Your task to perform on an android device: Show me the alarms in the clock app Image 0: 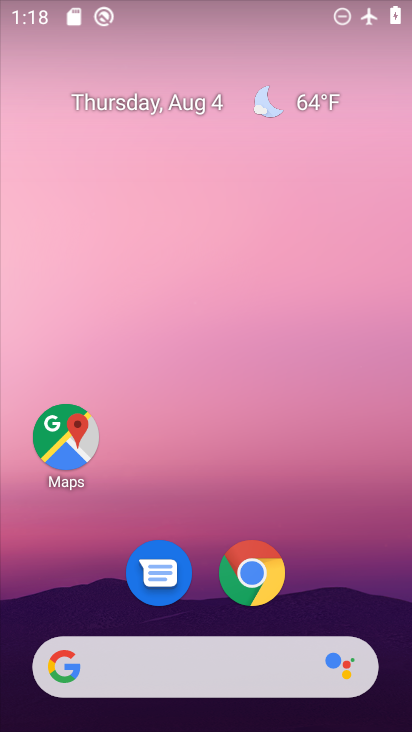
Step 0: drag from (355, 547) to (357, 26)
Your task to perform on an android device: Show me the alarms in the clock app Image 1: 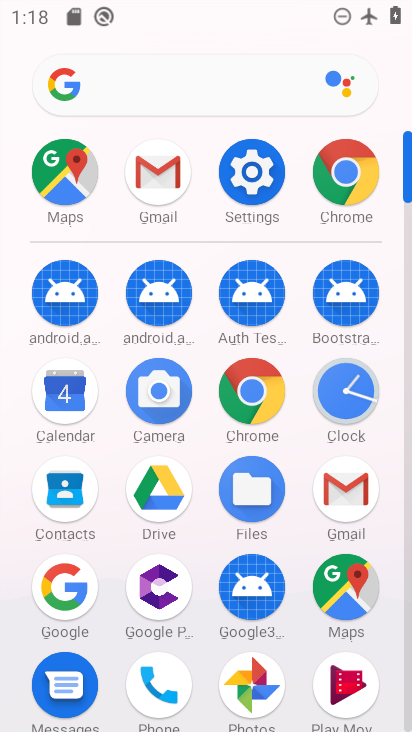
Step 1: click (344, 372)
Your task to perform on an android device: Show me the alarms in the clock app Image 2: 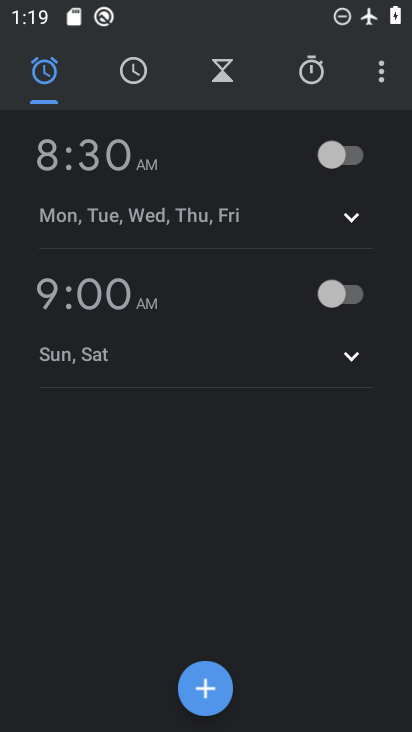
Step 2: task complete